Your task to perform on an android device: turn on translation in the chrome app Image 0: 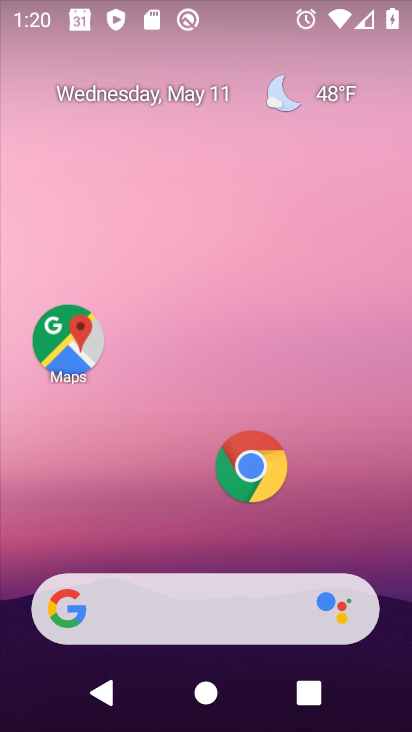
Step 0: click (258, 447)
Your task to perform on an android device: turn on translation in the chrome app Image 1: 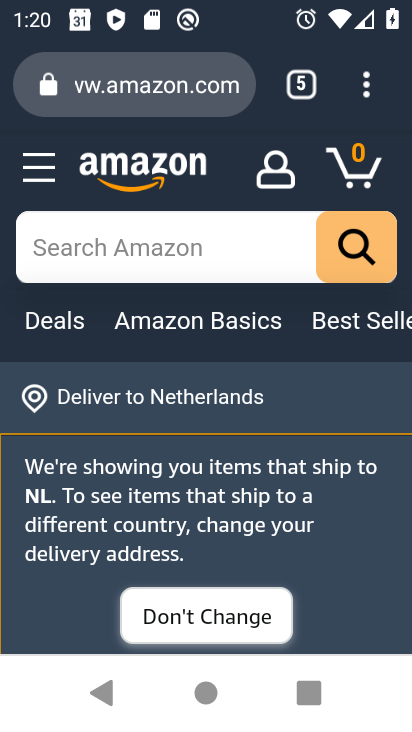
Step 1: drag from (367, 79) to (97, 495)
Your task to perform on an android device: turn on translation in the chrome app Image 2: 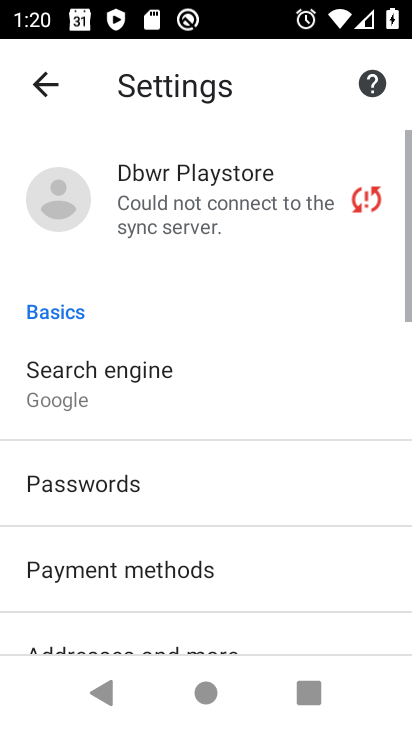
Step 2: drag from (153, 546) to (283, 81)
Your task to perform on an android device: turn on translation in the chrome app Image 3: 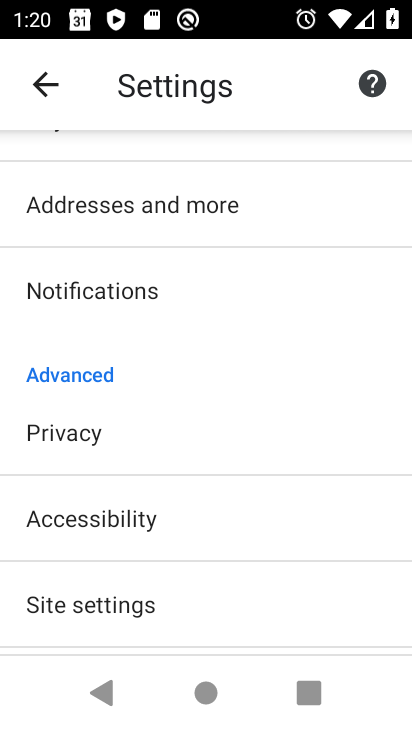
Step 3: drag from (99, 587) to (209, 228)
Your task to perform on an android device: turn on translation in the chrome app Image 4: 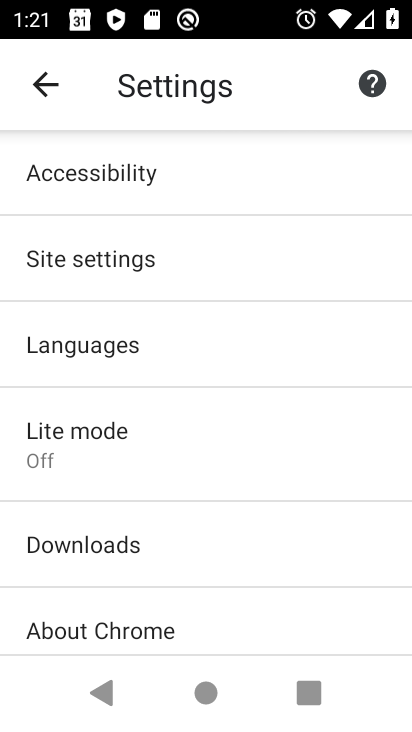
Step 4: click (97, 357)
Your task to perform on an android device: turn on translation in the chrome app Image 5: 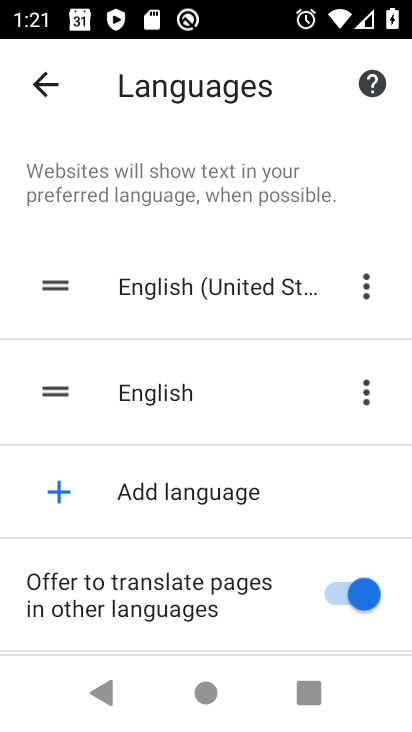
Step 5: task complete